Your task to perform on an android device: Find the nearest electronics store that's open today Image 0: 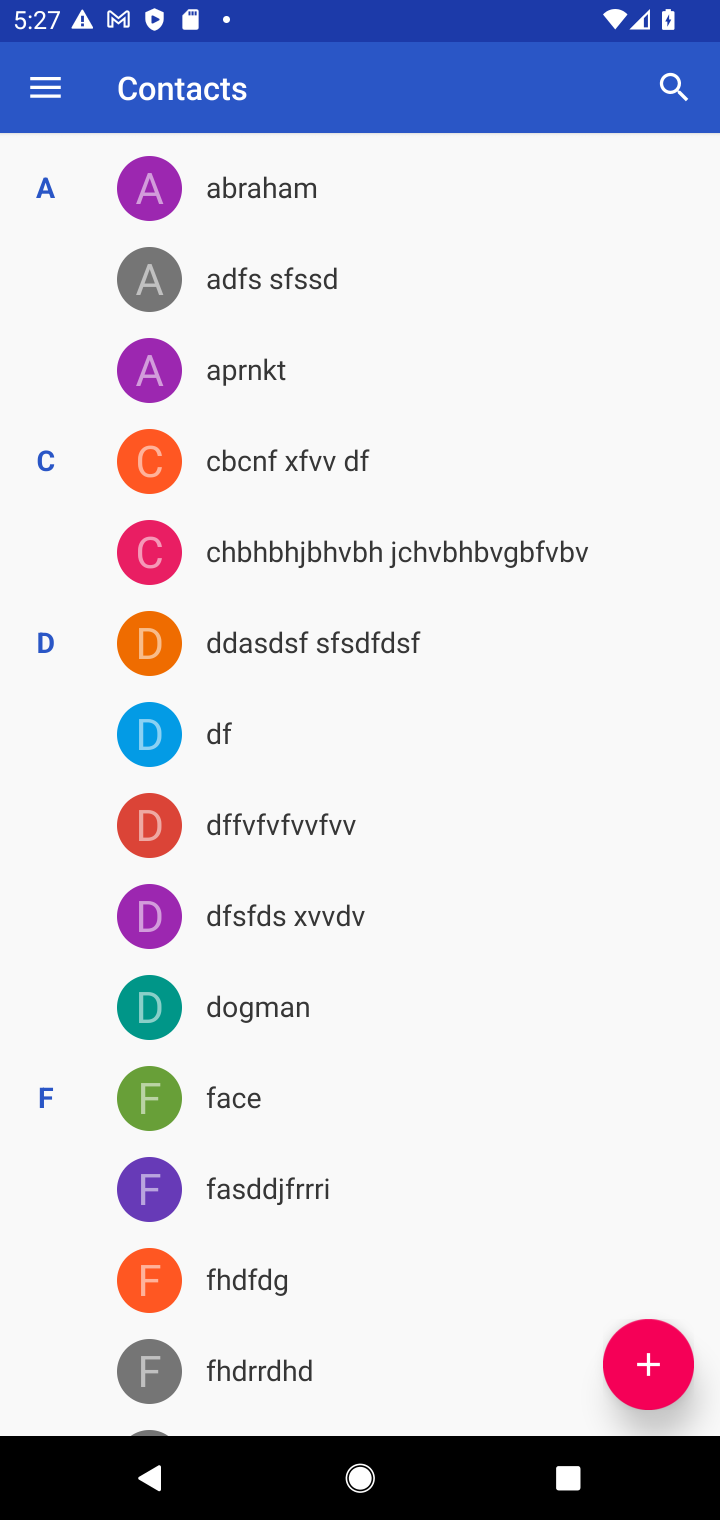
Step 0: press home button
Your task to perform on an android device: Find the nearest electronics store that's open today Image 1: 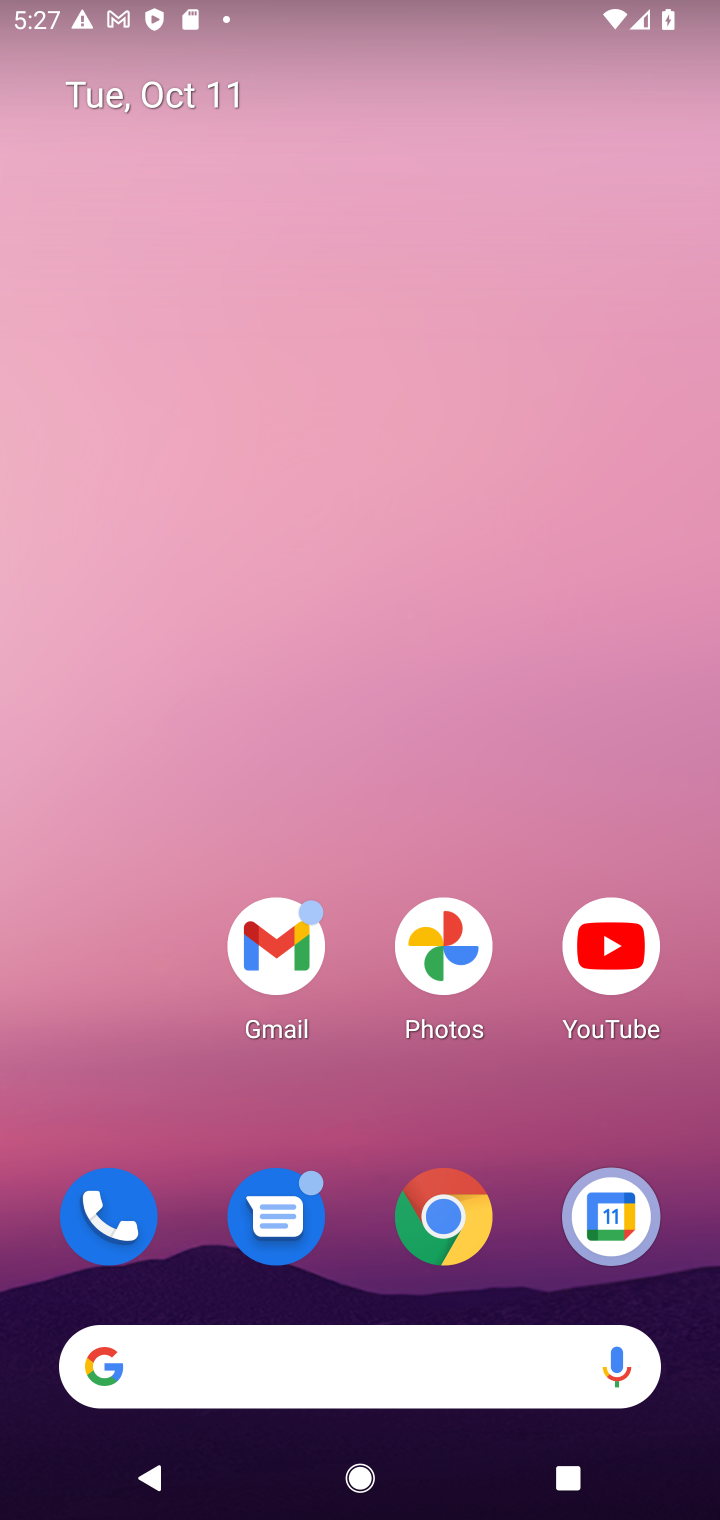
Step 1: click (445, 1212)
Your task to perform on an android device: Find the nearest electronics store that's open today Image 2: 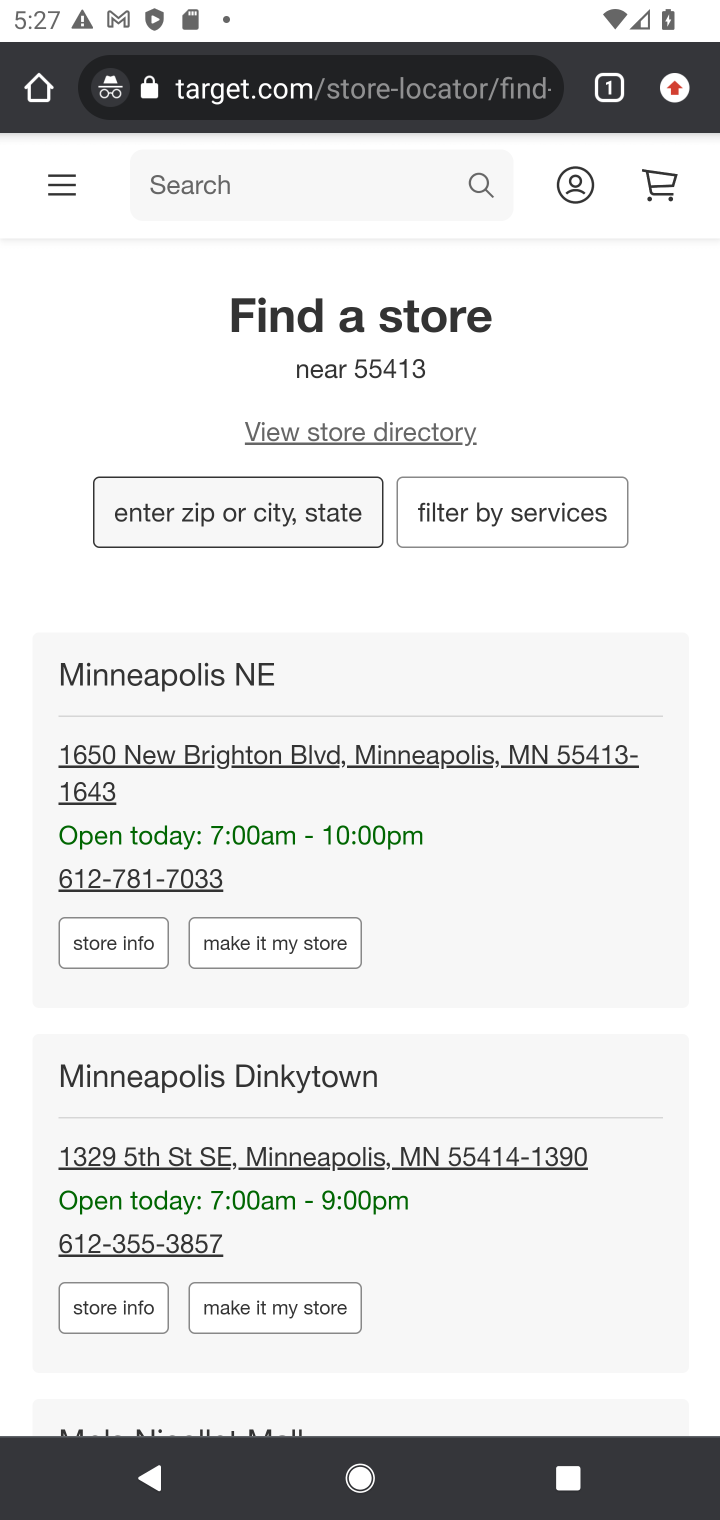
Step 2: click (305, 64)
Your task to perform on an android device: Find the nearest electronics store that's open today Image 3: 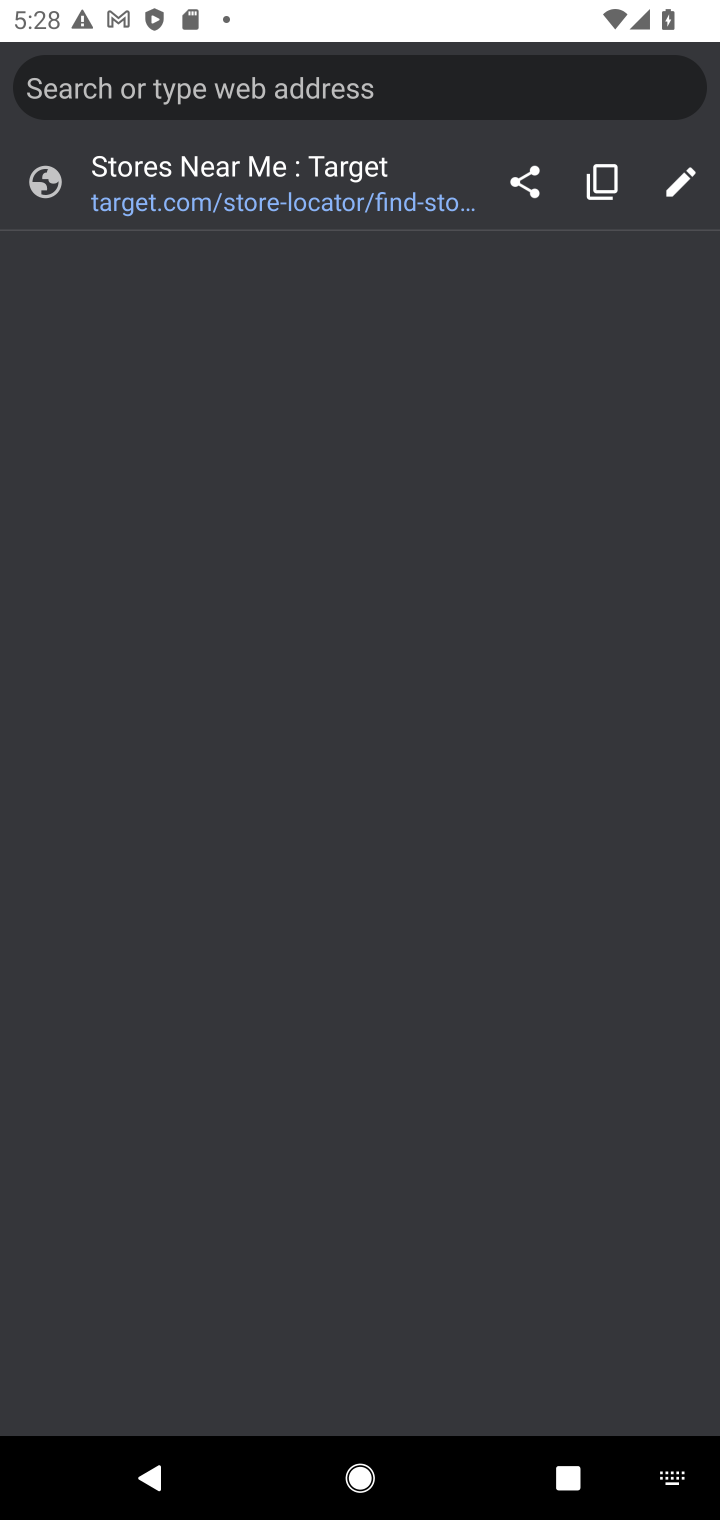
Step 3: type "Find the nearest electronics store that's open today"
Your task to perform on an android device: Find the nearest electronics store that's open today Image 4: 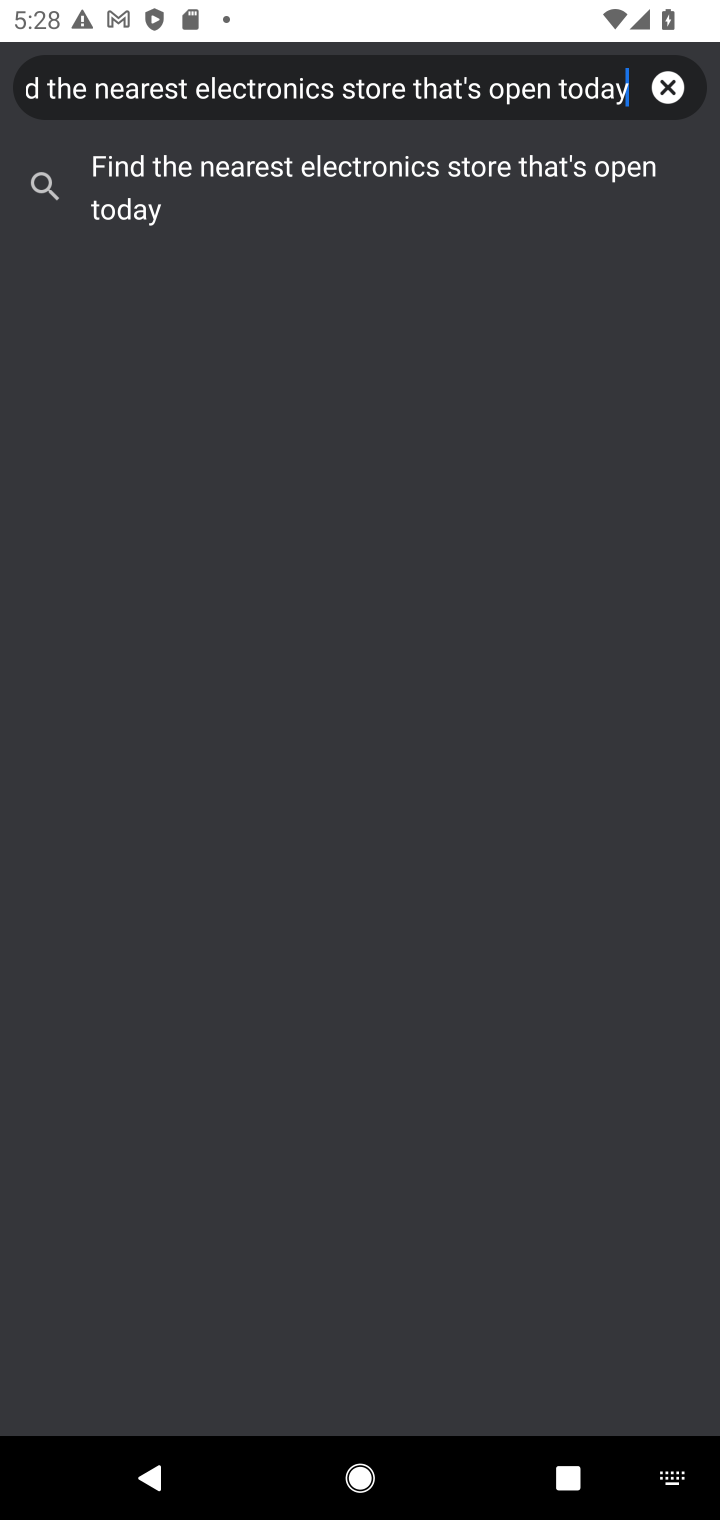
Step 4: click (290, 179)
Your task to perform on an android device: Find the nearest electronics store that's open today Image 5: 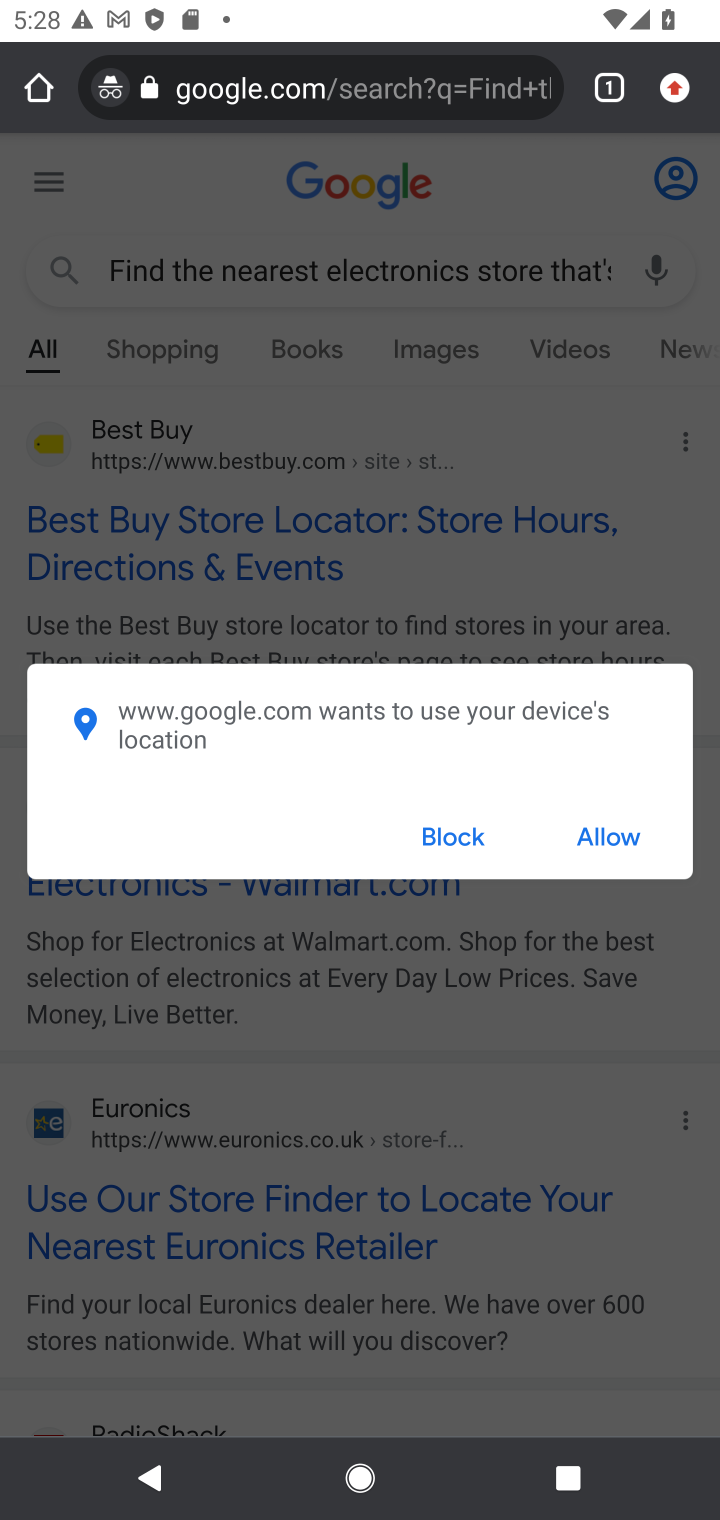
Step 5: click (613, 843)
Your task to perform on an android device: Find the nearest electronics store that's open today Image 6: 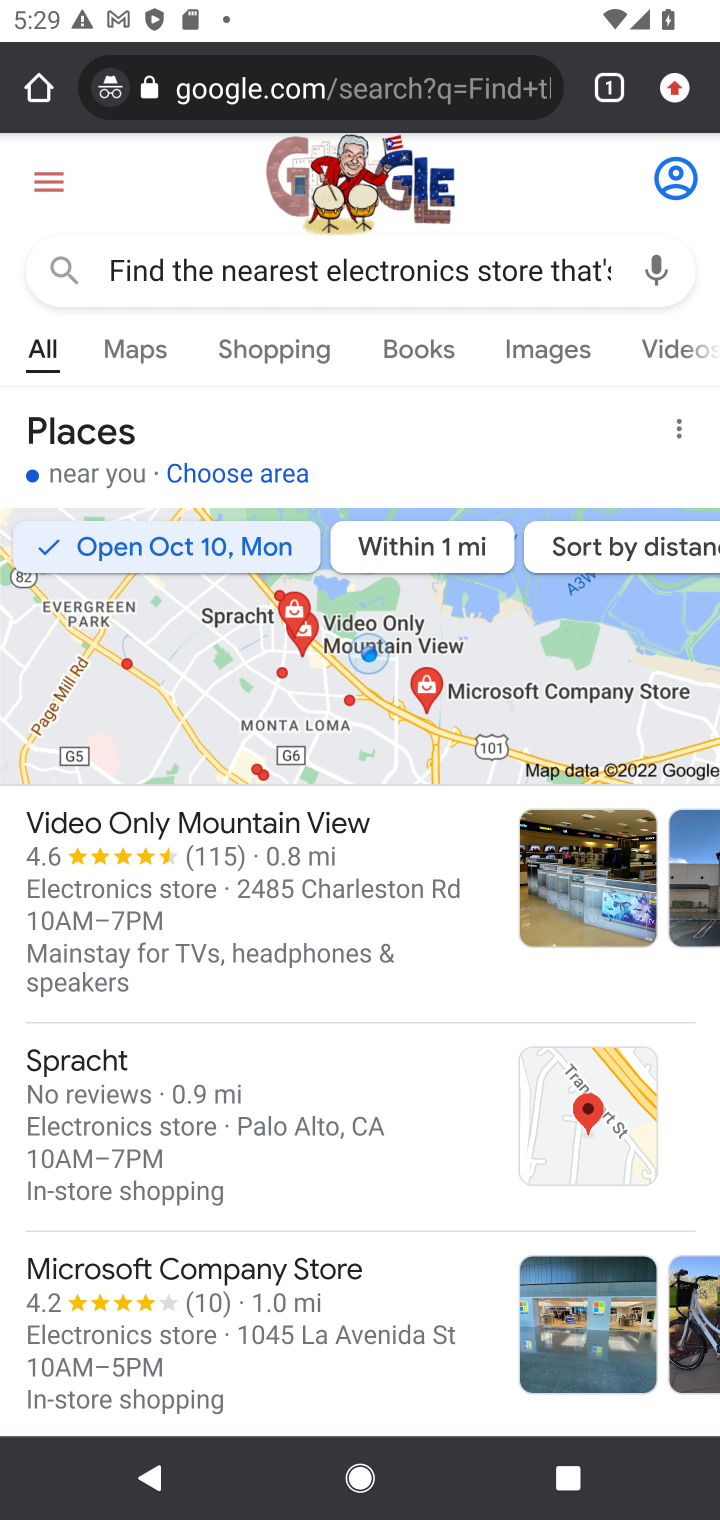
Step 6: task complete